Your task to perform on an android device: Open the stopwatch Image 0: 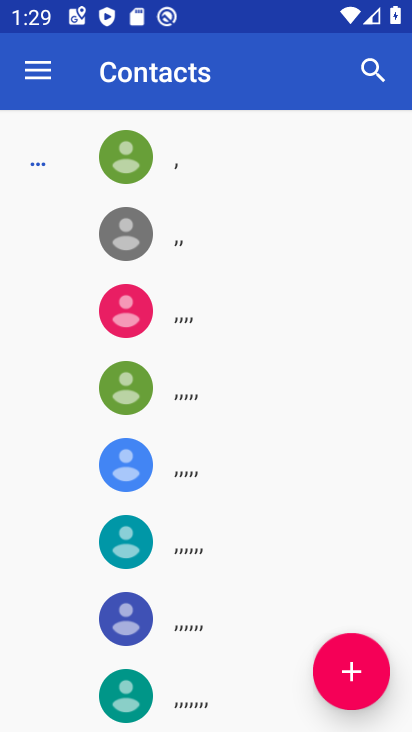
Step 0: press home button
Your task to perform on an android device: Open the stopwatch Image 1: 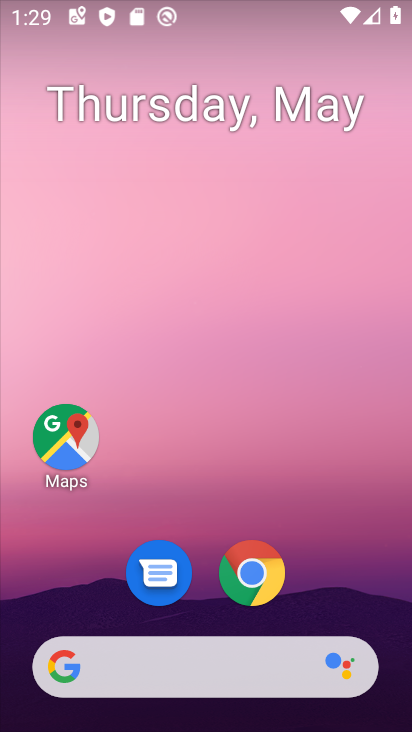
Step 1: drag from (227, 657) to (247, 182)
Your task to perform on an android device: Open the stopwatch Image 2: 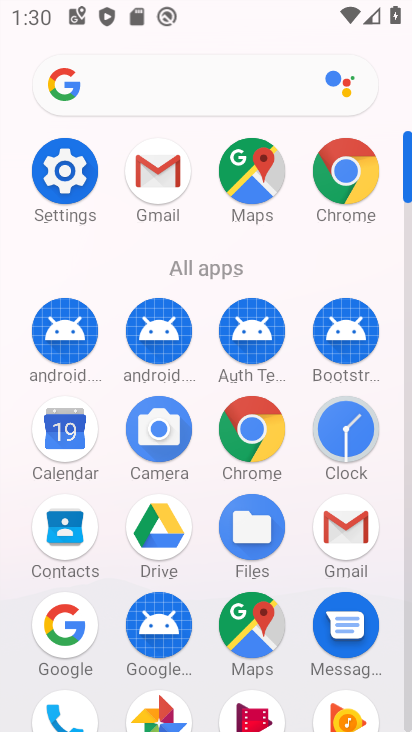
Step 2: click (358, 424)
Your task to perform on an android device: Open the stopwatch Image 3: 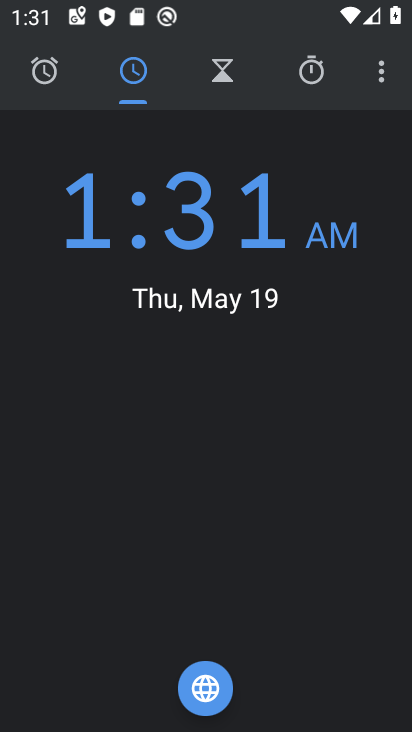
Step 3: click (306, 80)
Your task to perform on an android device: Open the stopwatch Image 4: 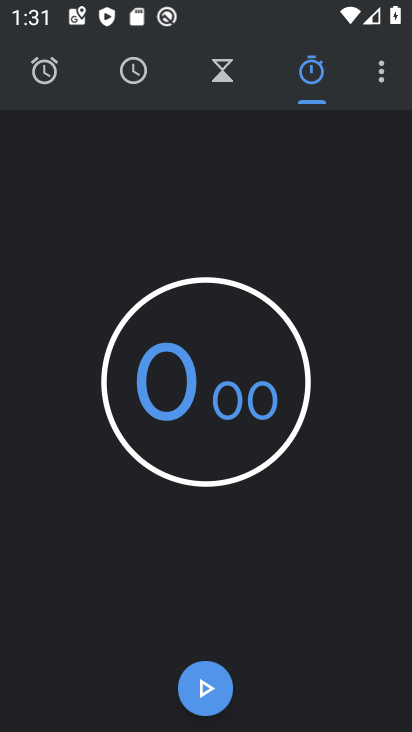
Step 4: task complete